Your task to perform on an android device: Open eBay Image 0: 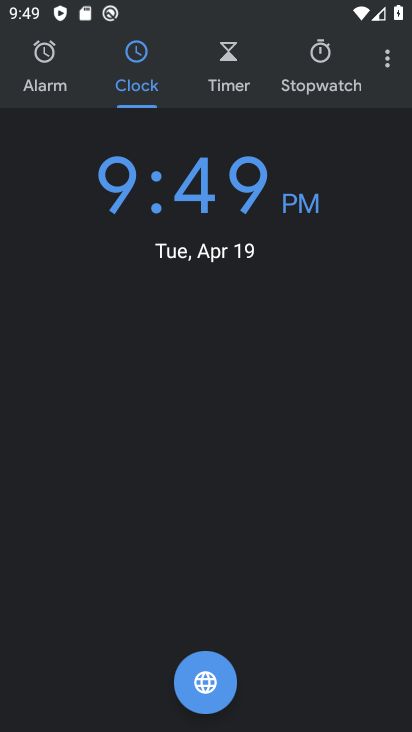
Step 0: press back button
Your task to perform on an android device: Open eBay Image 1: 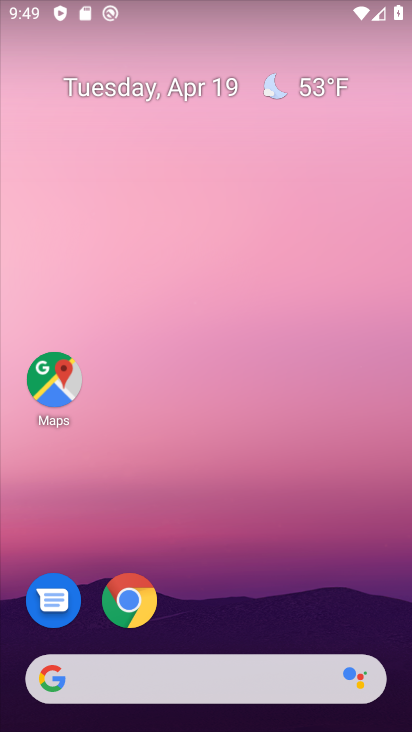
Step 1: click (129, 622)
Your task to perform on an android device: Open eBay Image 2: 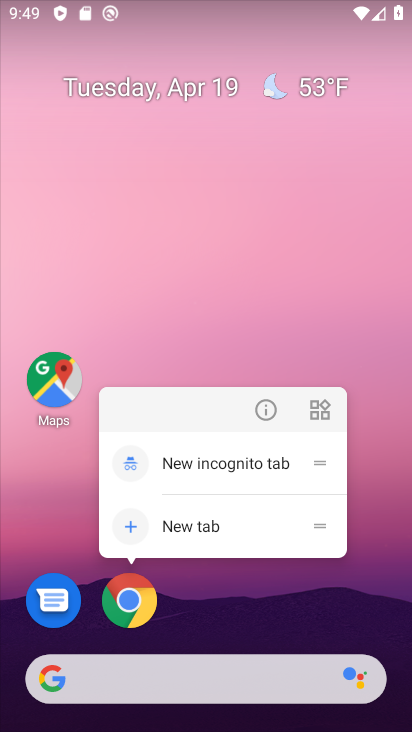
Step 2: click (136, 600)
Your task to perform on an android device: Open eBay Image 3: 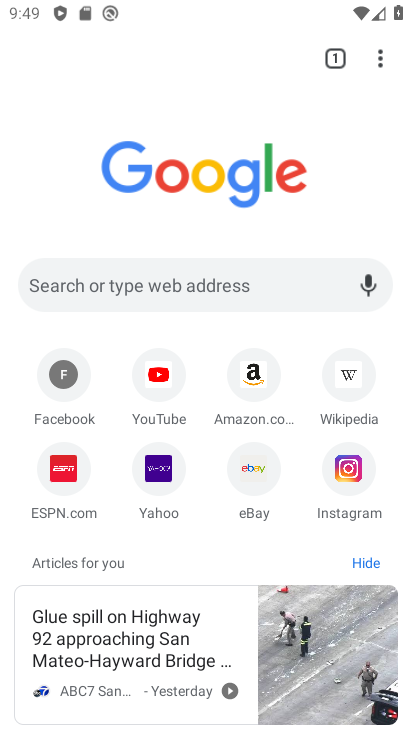
Step 3: click (246, 480)
Your task to perform on an android device: Open eBay Image 4: 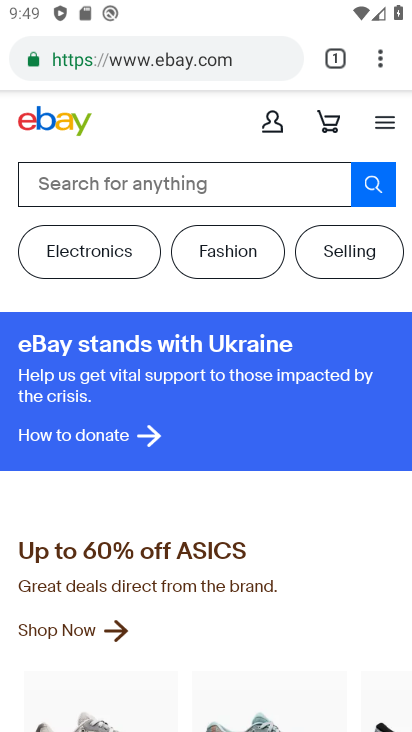
Step 4: task complete